Your task to perform on an android device: Search for Italian restaurants on Maps Image 0: 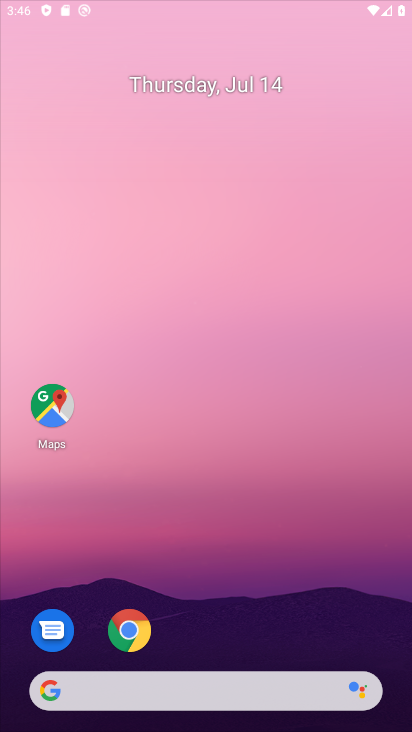
Step 0: press home button
Your task to perform on an android device: Search for Italian restaurants on Maps Image 1: 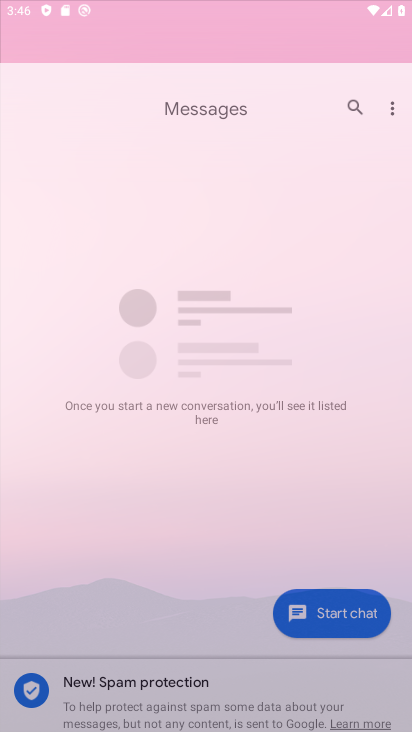
Step 1: drag from (300, 694) to (330, 26)
Your task to perform on an android device: Search for Italian restaurants on Maps Image 2: 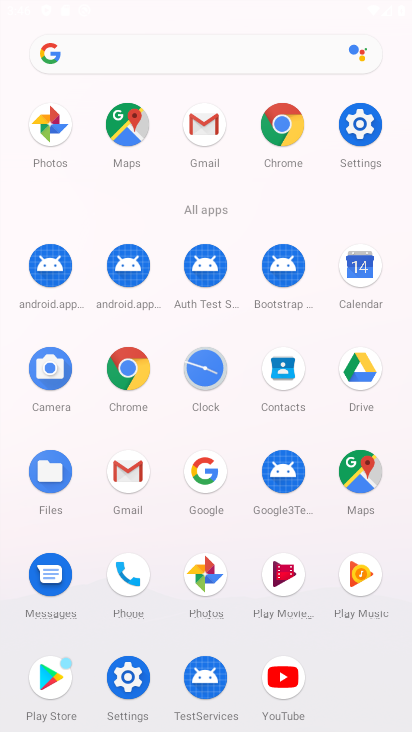
Step 2: click (349, 470)
Your task to perform on an android device: Search for Italian restaurants on Maps Image 3: 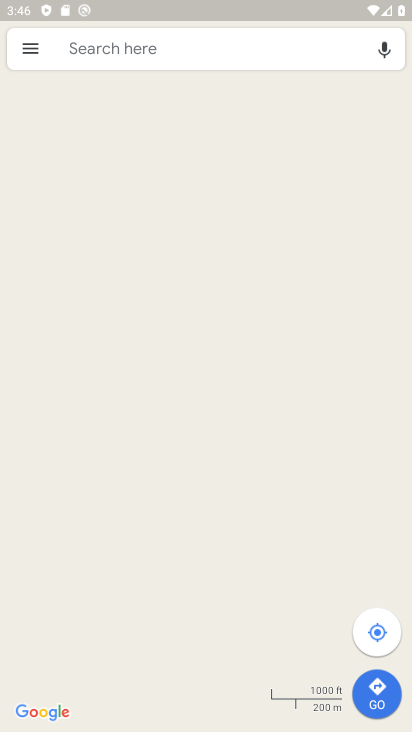
Step 3: click (132, 52)
Your task to perform on an android device: Search for Italian restaurants on Maps Image 4: 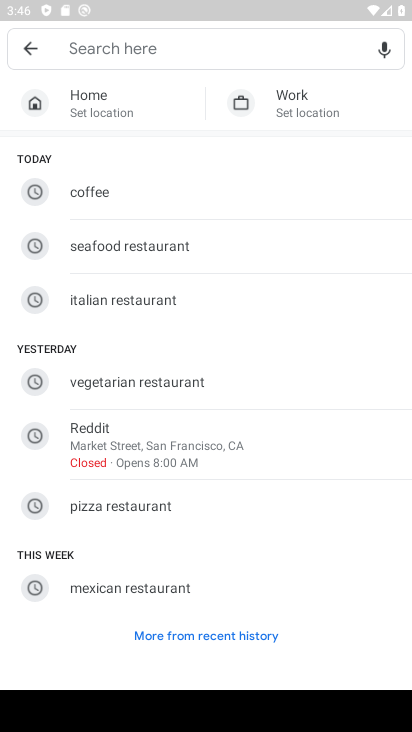
Step 4: type "italian restaurant"
Your task to perform on an android device: Search for Italian restaurants on Maps Image 5: 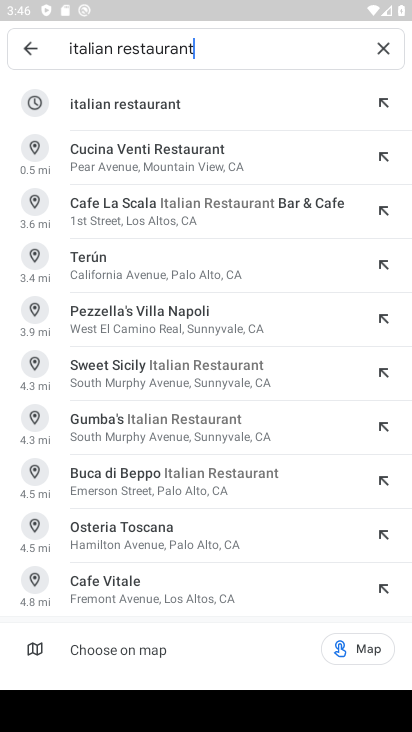
Step 5: click (277, 109)
Your task to perform on an android device: Search for Italian restaurants on Maps Image 6: 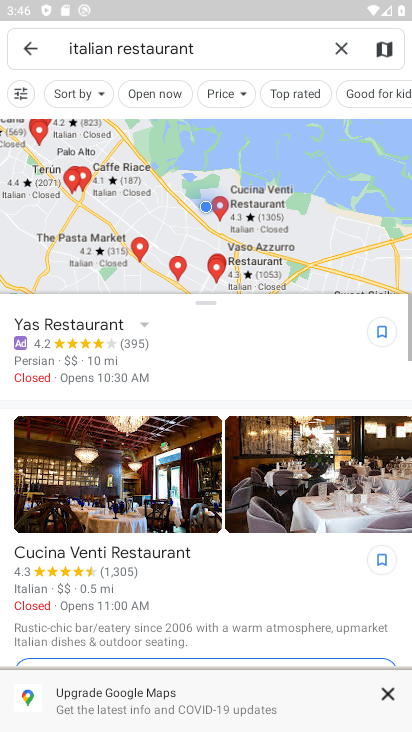
Step 6: task complete